Your task to perform on an android device: open wifi settings Image 0: 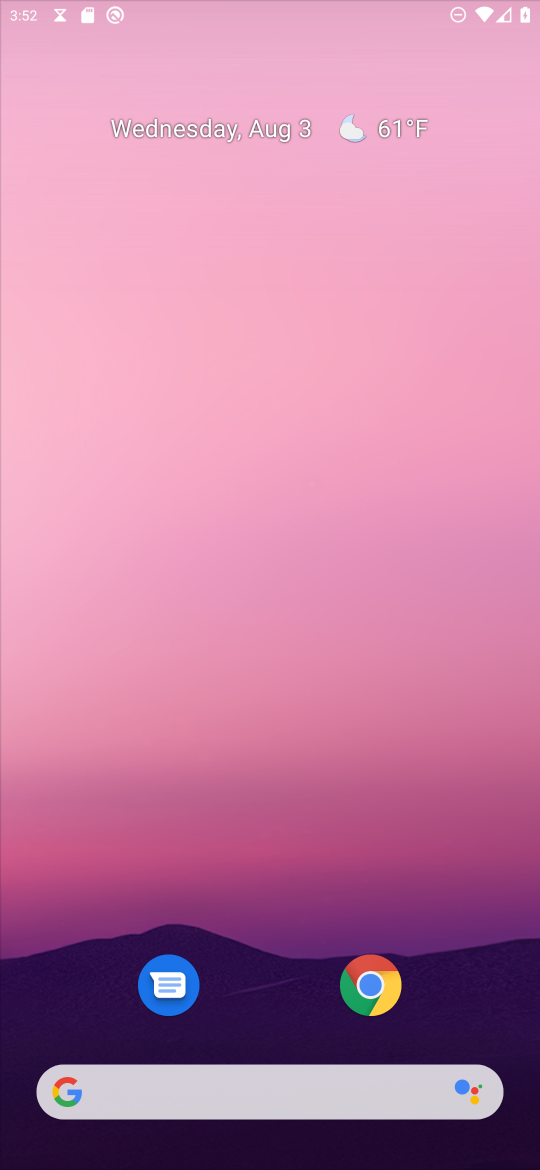
Step 0: press home button
Your task to perform on an android device: open wifi settings Image 1: 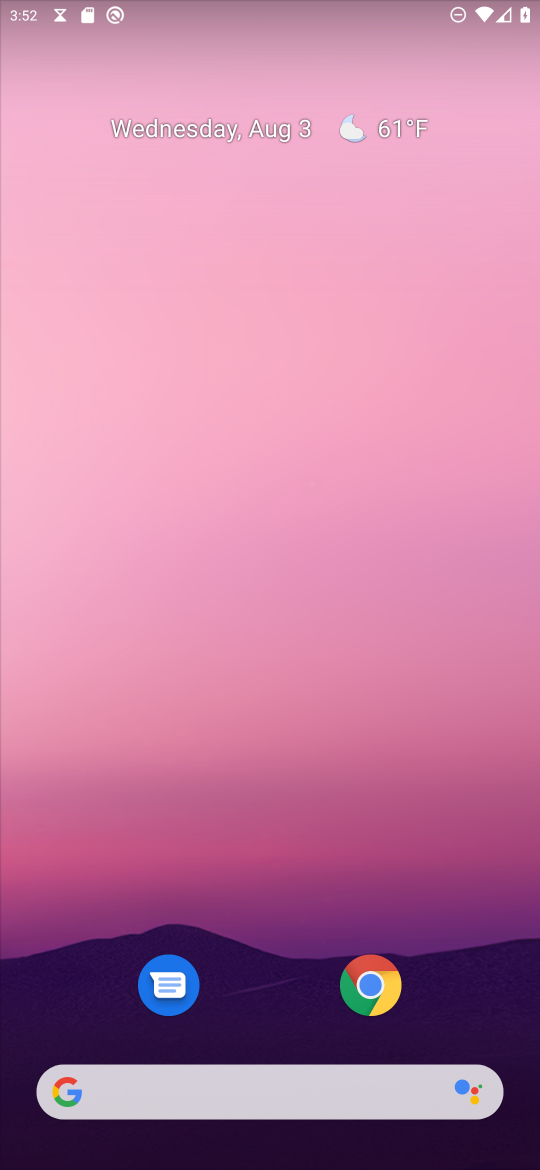
Step 1: drag from (265, 951) to (180, 246)
Your task to perform on an android device: open wifi settings Image 2: 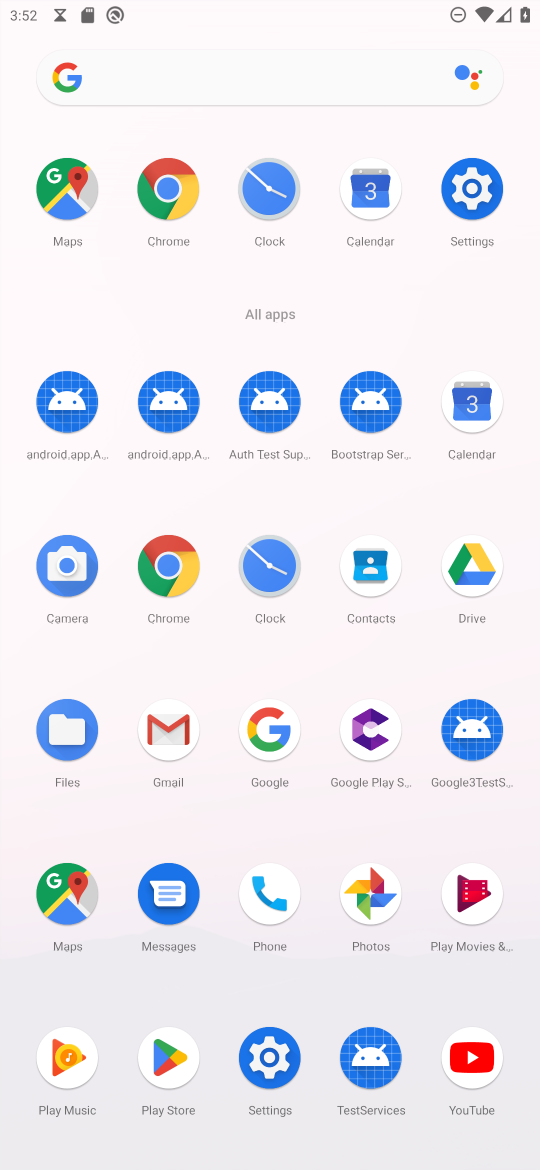
Step 2: click (465, 186)
Your task to perform on an android device: open wifi settings Image 3: 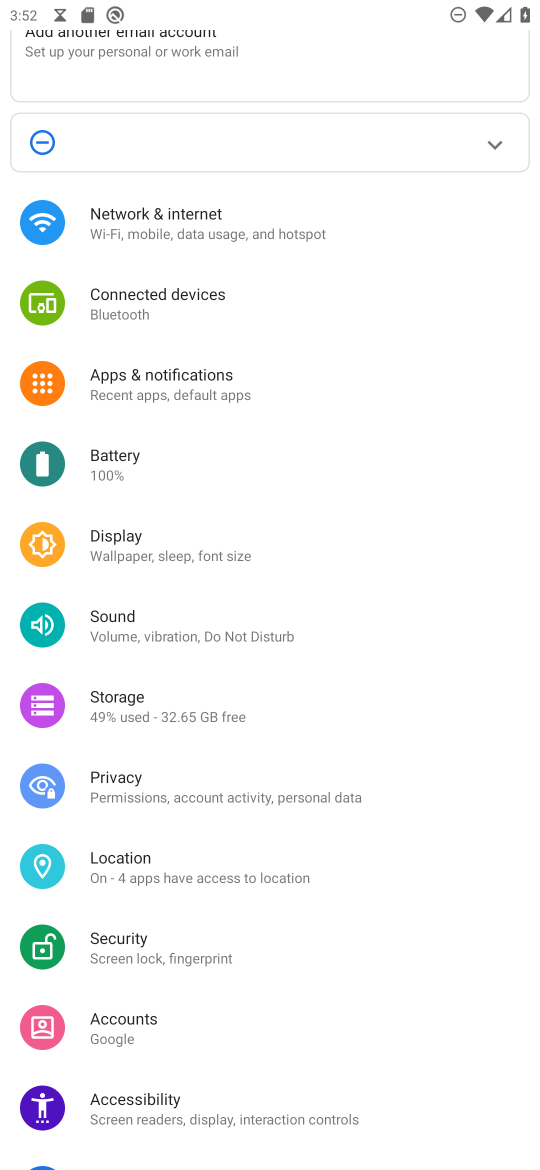
Step 3: click (227, 211)
Your task to perform on an android device: open wifi settings Image 4: 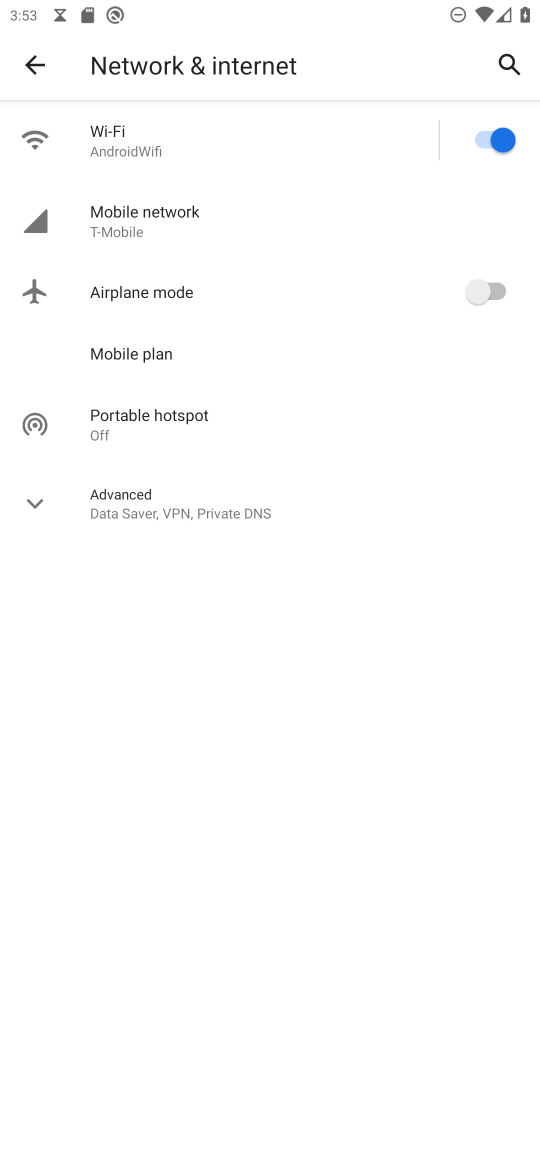
Step 4: click (113, 128)
Your task to perform on an android device: open wifi settings Image 5: 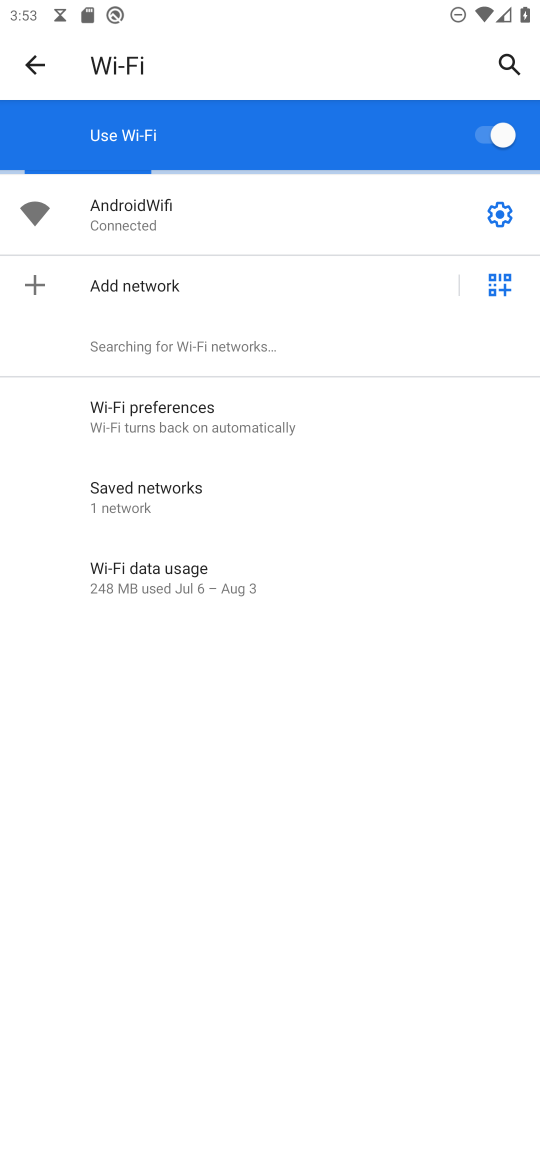
Step 5: task complete